Your task to perform on an android device: open app "Google Translate" (install if not already installed) Image 0: 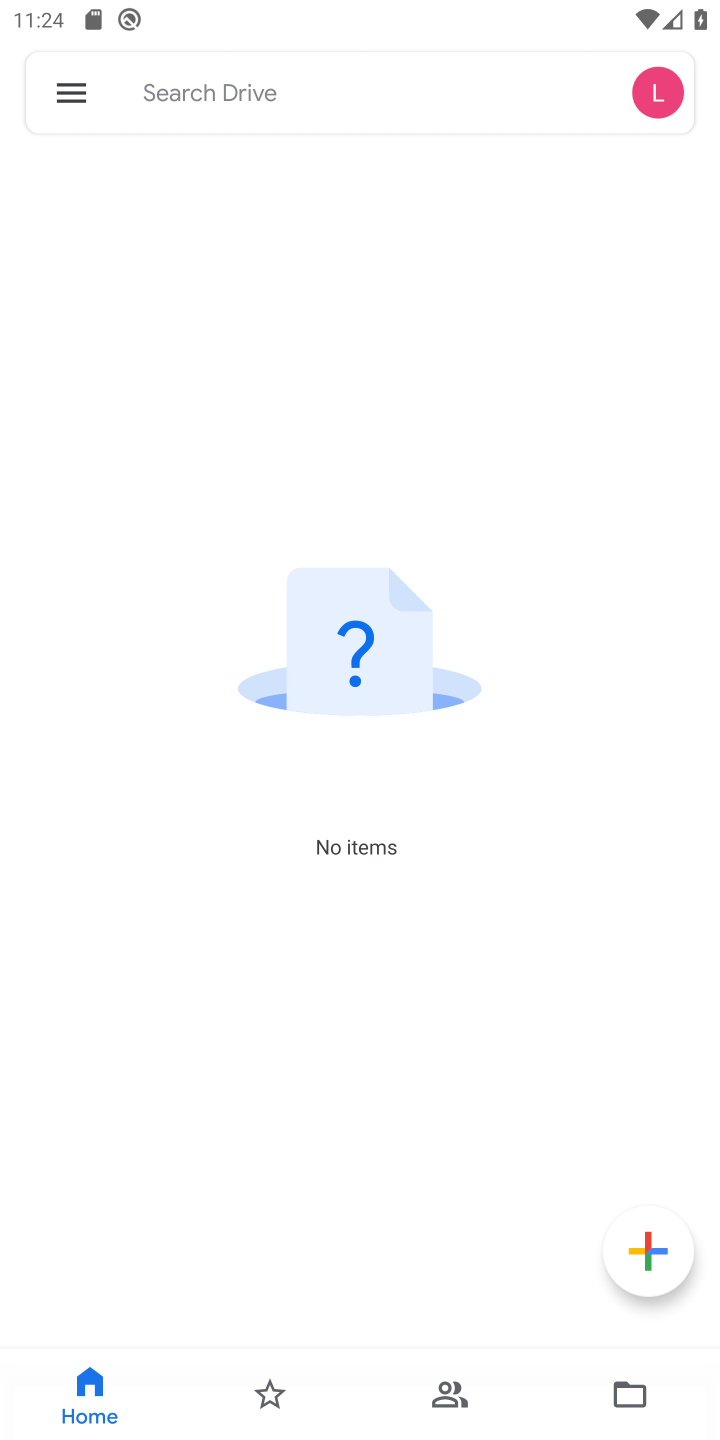
Step 0: press home button
Your task to perform on an android device: open app "Google Translate" (install if not already installed) Image 1: 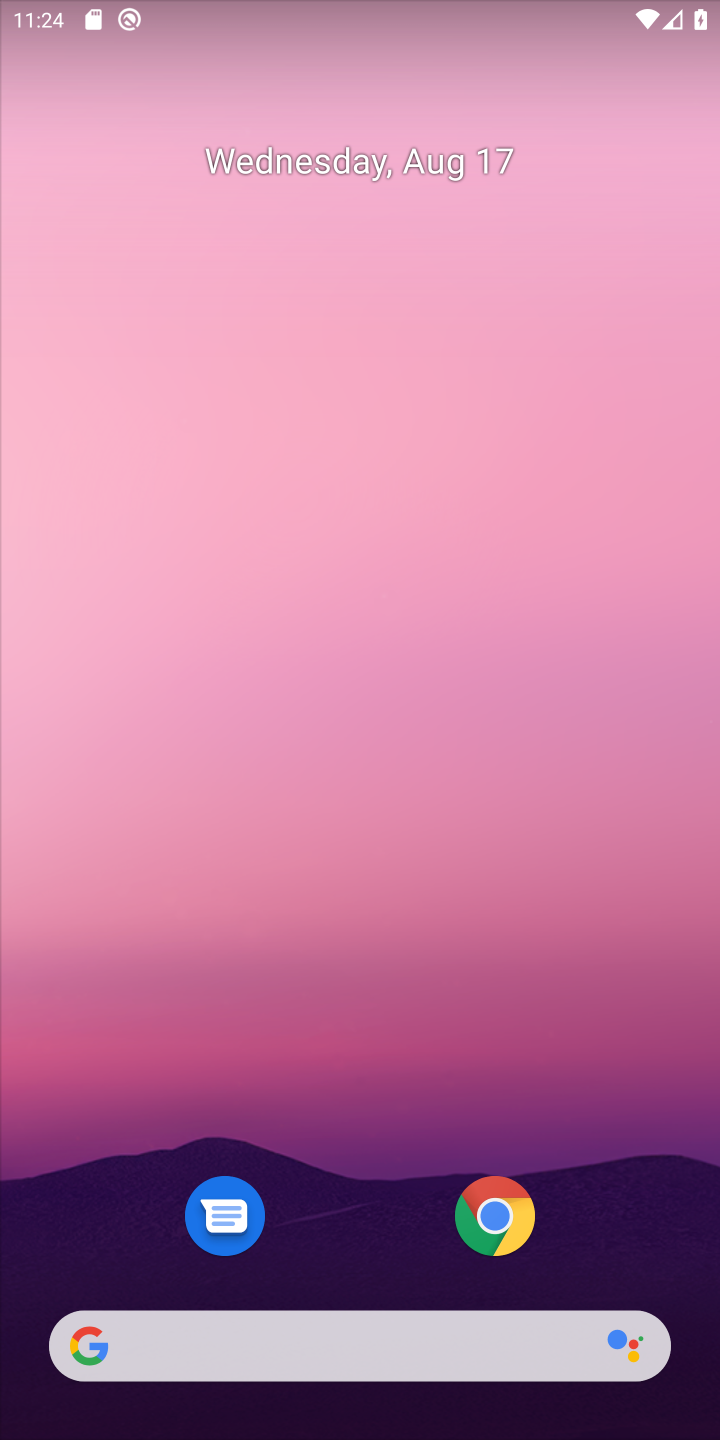
Step 1: drag from (556, 678) to (412, 84)
Your task to perform on an android device: open app "Google Translate" (install if not already installed) Image 2: 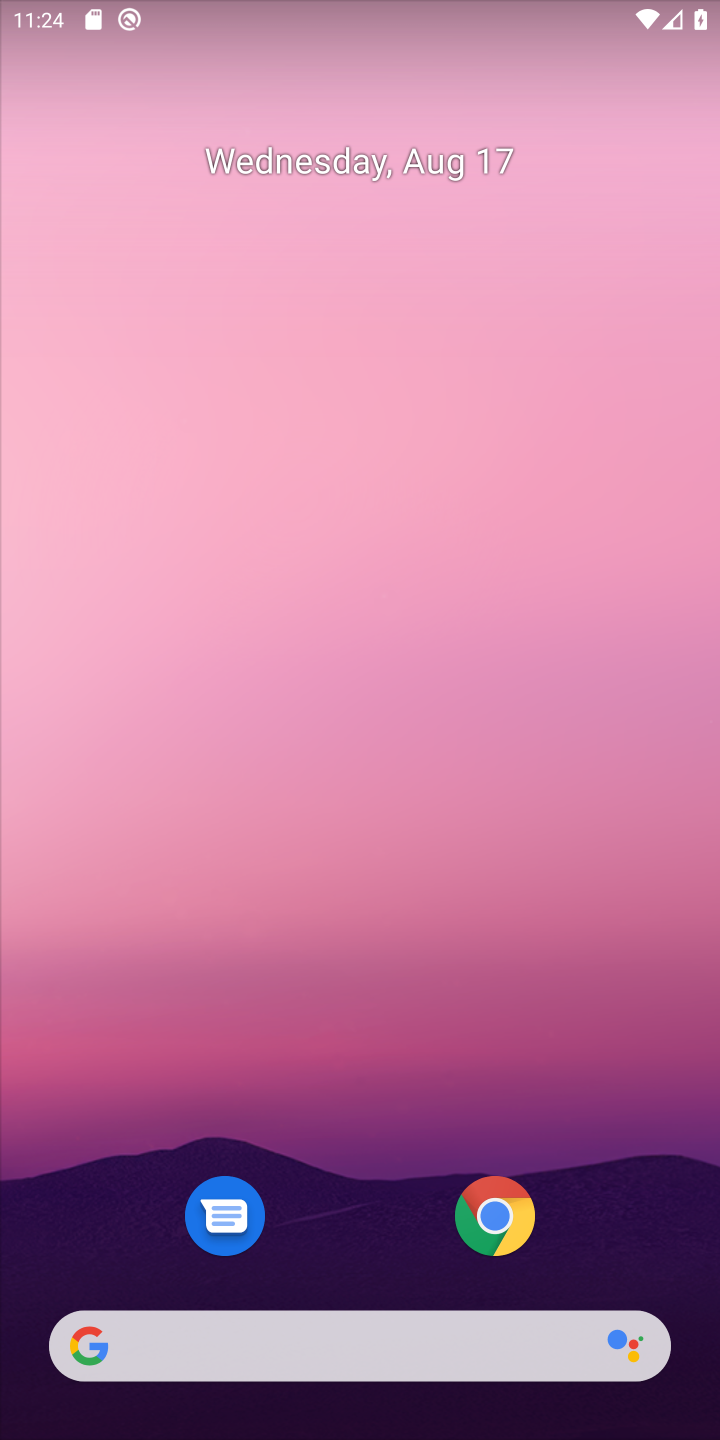
Step 2: drag from (587, 1114) to (410, 425)
Your task to perform on an android device: open app "Google Translate" (install if not already installed) Image 3: 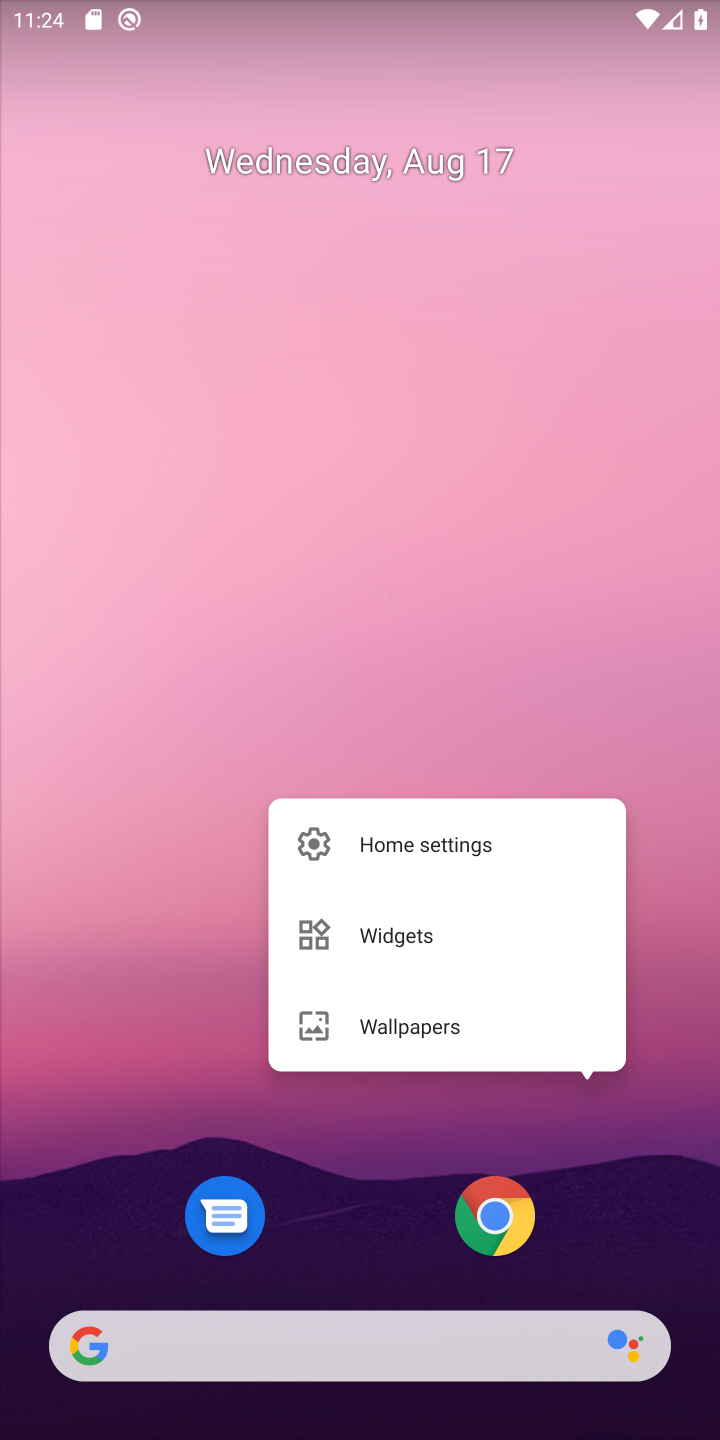
Step 3: click (522, 561)
Your task to perform on an android device: open app "Google Translate" (install if not already installed) Image 4: 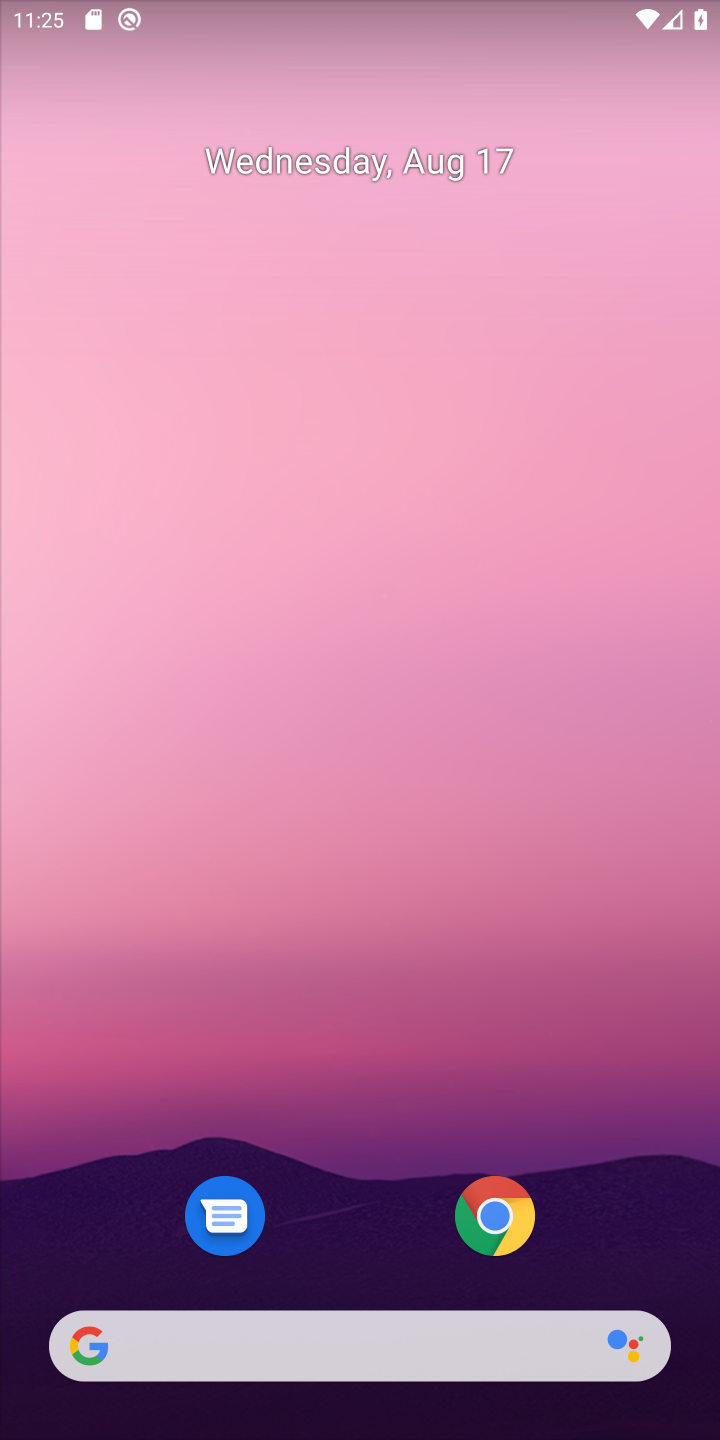
Step 4: drag from (635, 1189) to (556, 400)
Your task to perform on an android device: open app "Google Translate" (install if not already installed) Image 5: 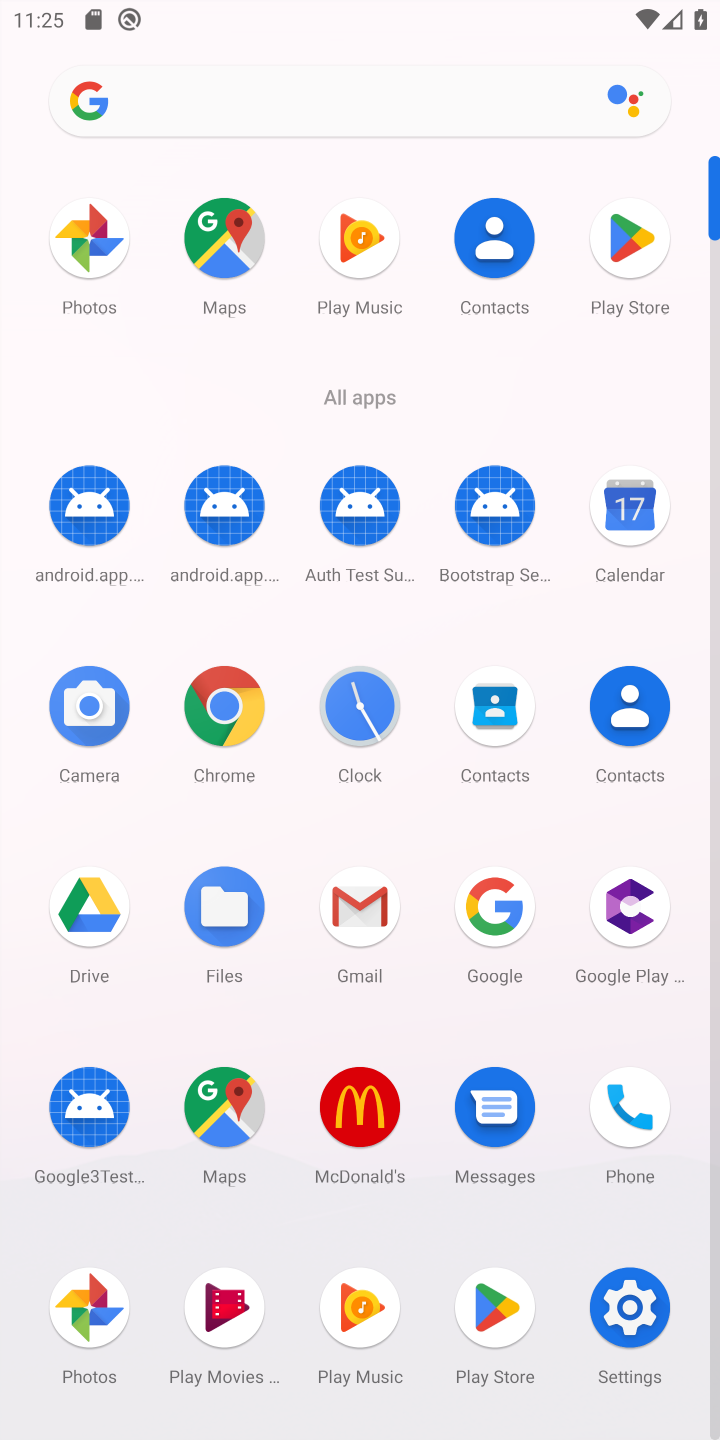
Step 5: click (491, 1318)
Your task to perform on an android device: open app "Google Translate" (install if not already installed) Image 6: 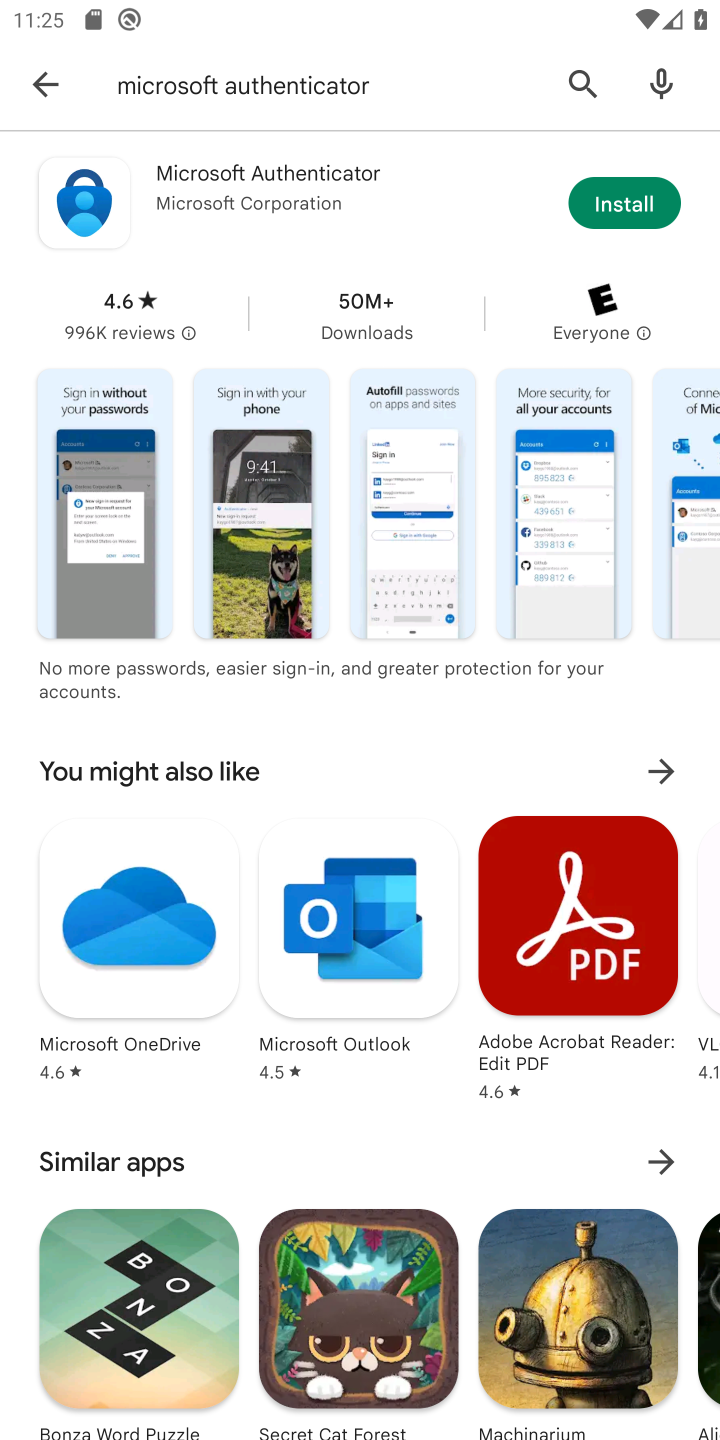
Step 6: click (572, 92)
Your task to perform on an android device: open app "Google Translate" (install if not already installed) Image 7: 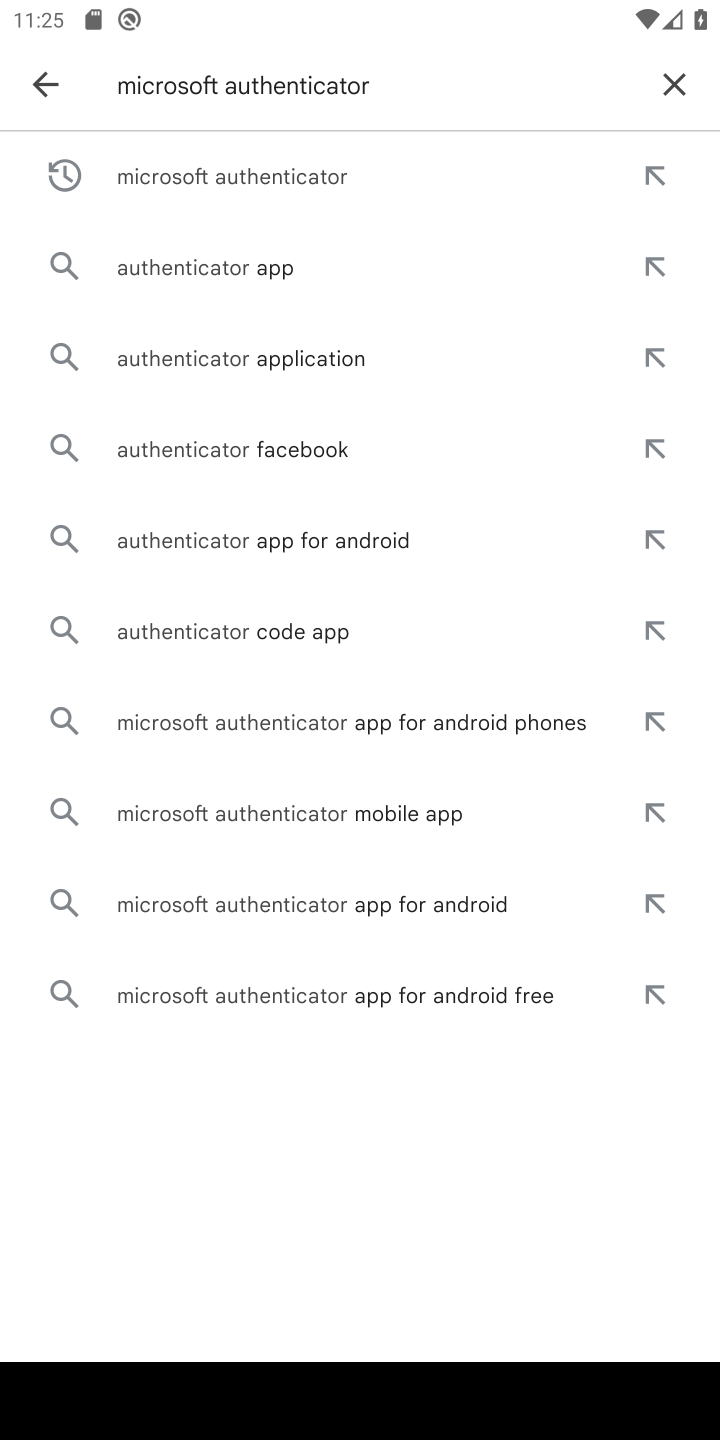
Step 7: click (678, 91)
Your task to perform on an android device: open app "Google Translate" (install if not already installed) Image 8: 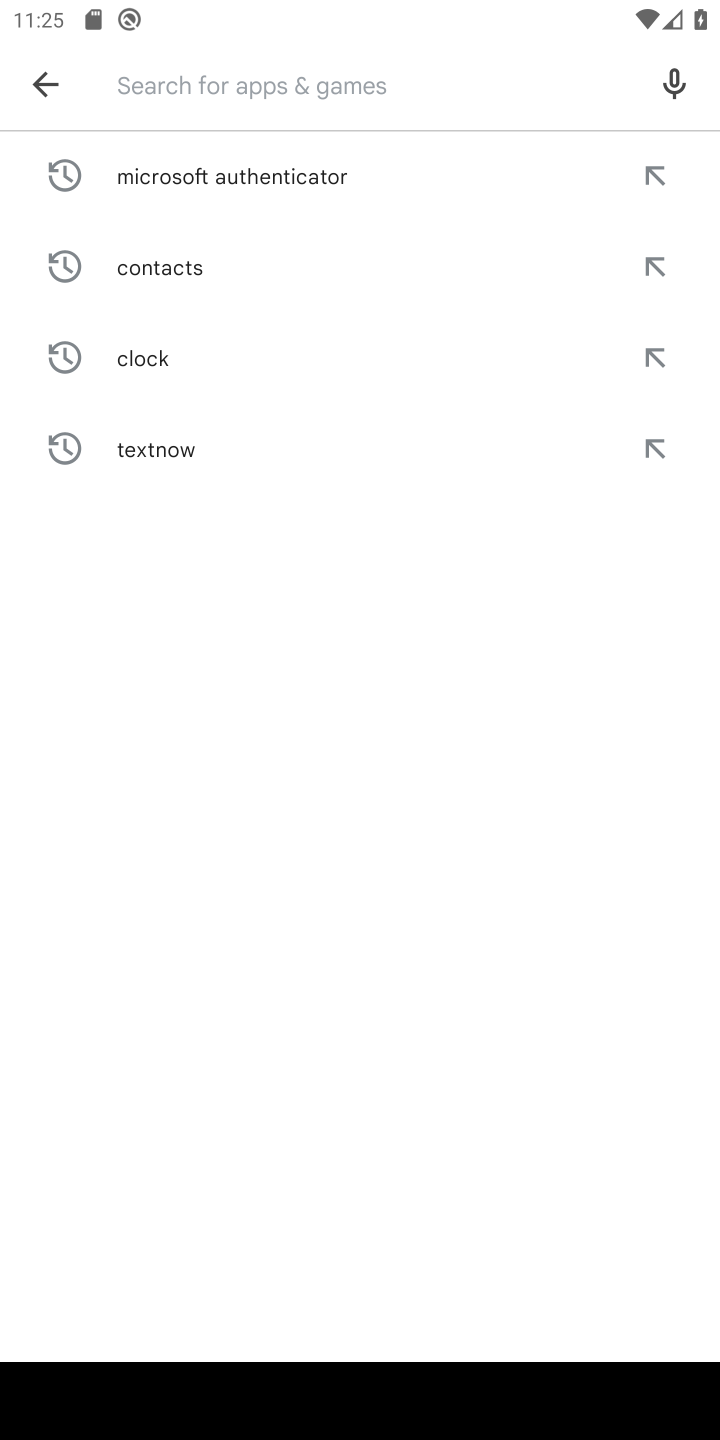
Step 8: type "google translate"
Your task to perform on an android device: open app "Google Translate" (install if not already installed) Image 9: 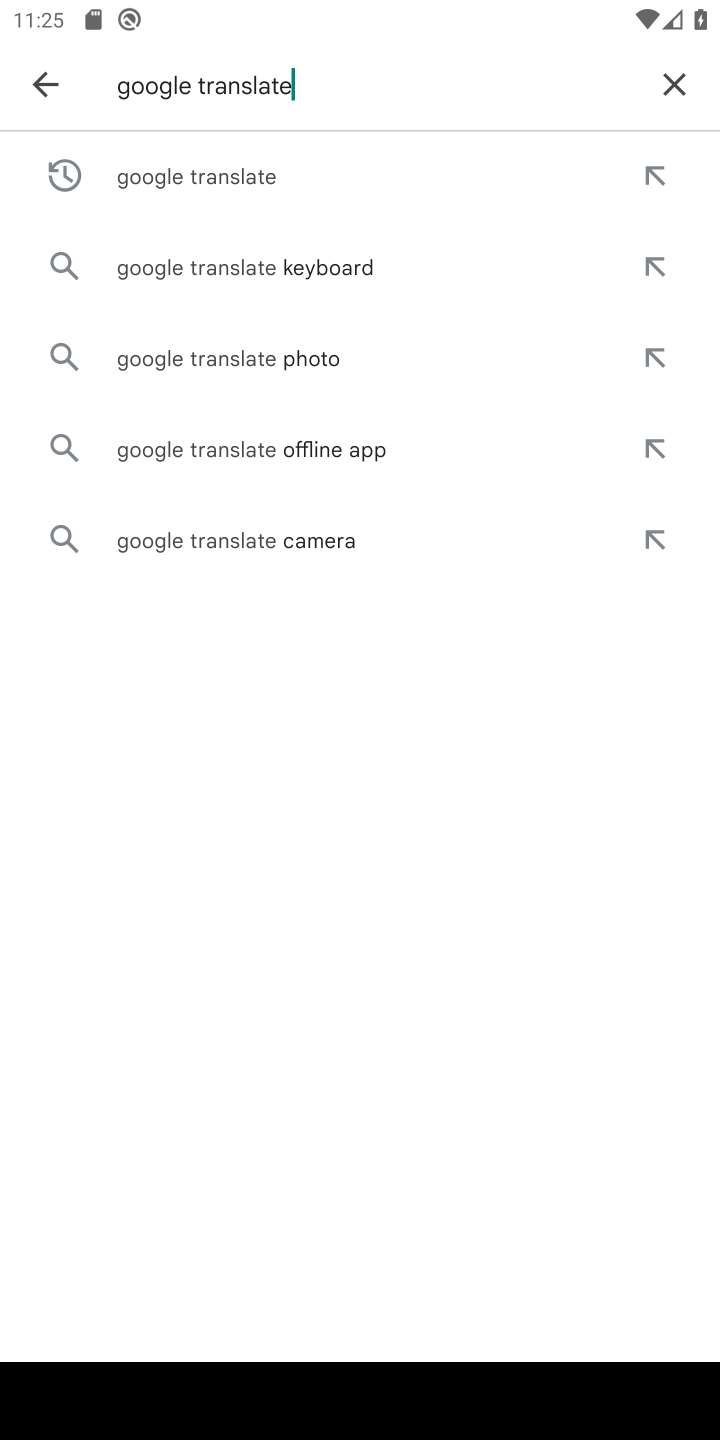
Step 9: click (272, 163)
Your task to perform on an android device: open app "Google Translate" (install if not already installed) Image 10: 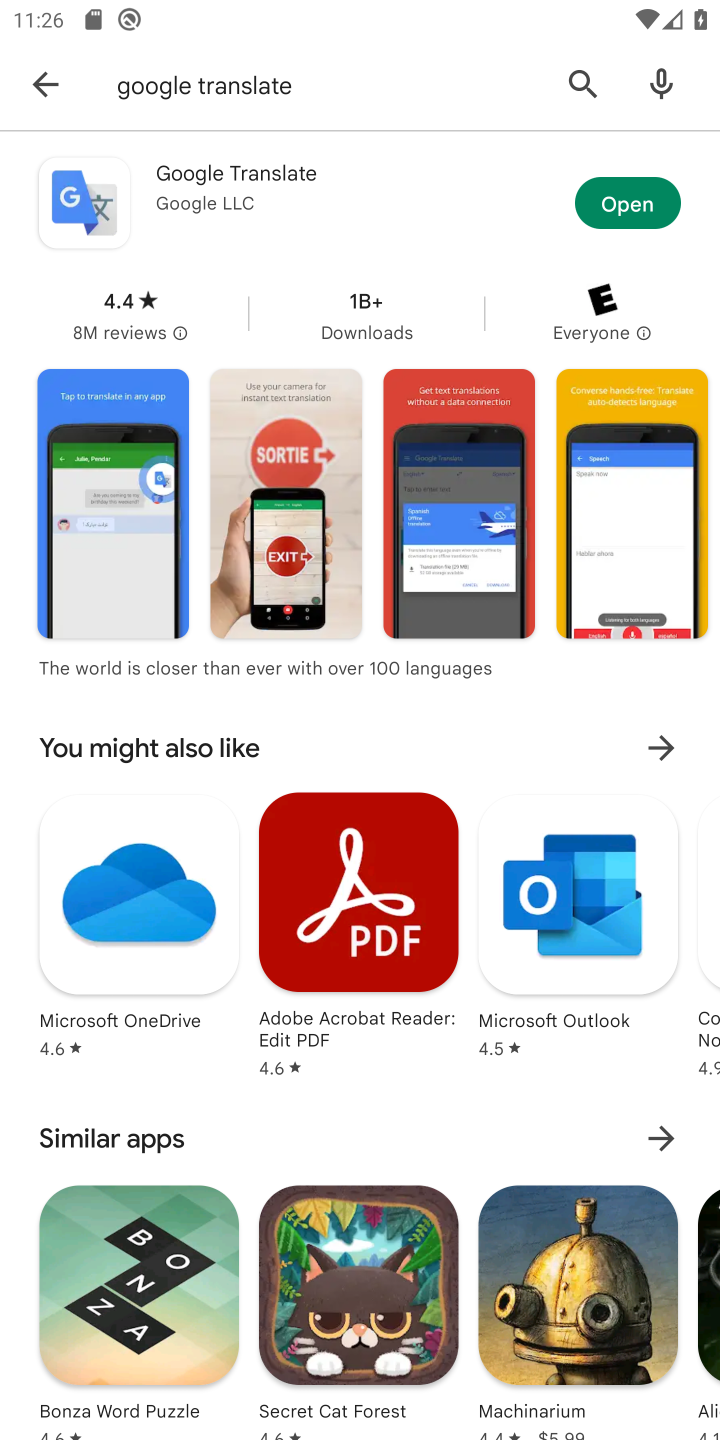
Step 10: click (626, 218)
Your task to perform on an android device: open app "Google Translate" (install if not already installed) Image 11: 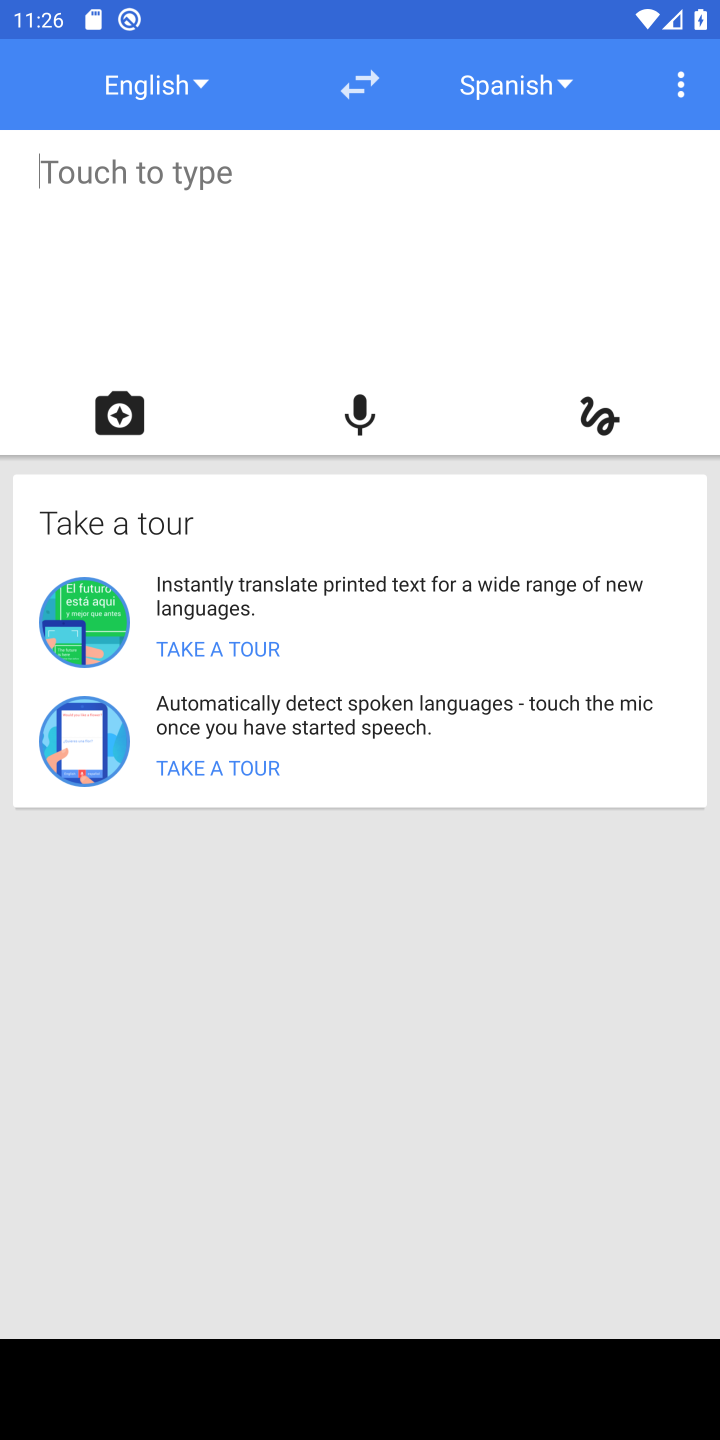
Step 11: task complete